Your task to perform on an android device: manage bookmarks in the chrome app Image 0: 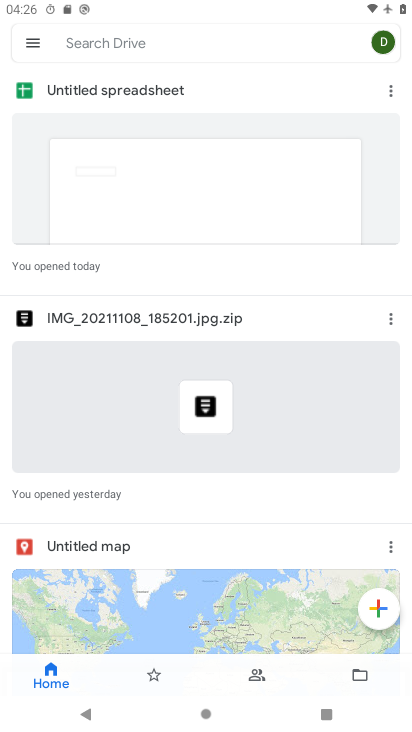
Step 0: press home button
Your task to perform on an android device: manage bookmarks in the chrome app Image 1: 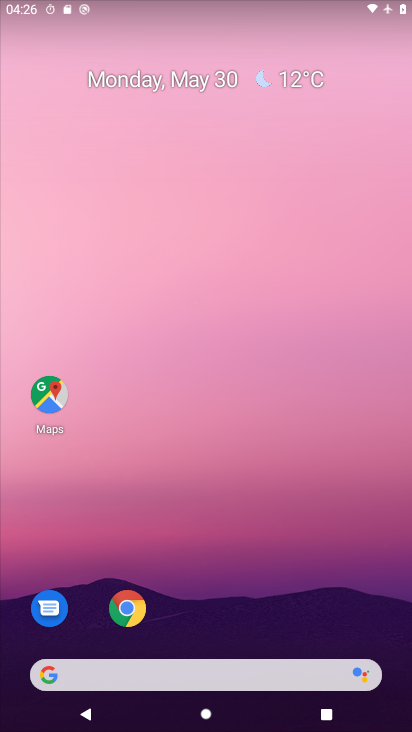
Step 1: click (133, 613)
Your task to perform on an android device: manage bookmarks in the chrome app Image 2: 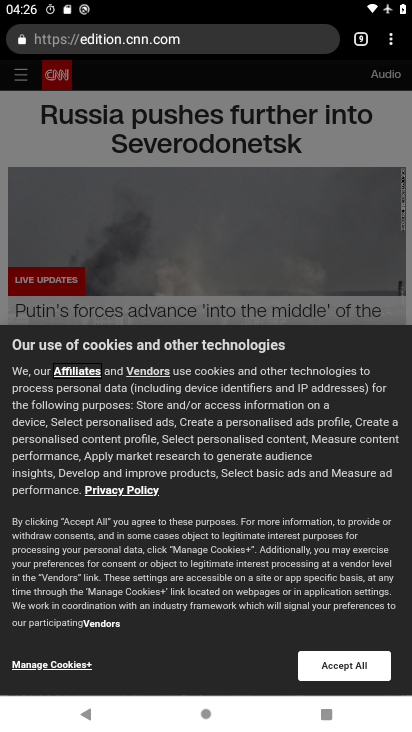
Step 2: click (387, 44)
Your task to perform on an android device: manage bookmarks in the chrome app Image 3: 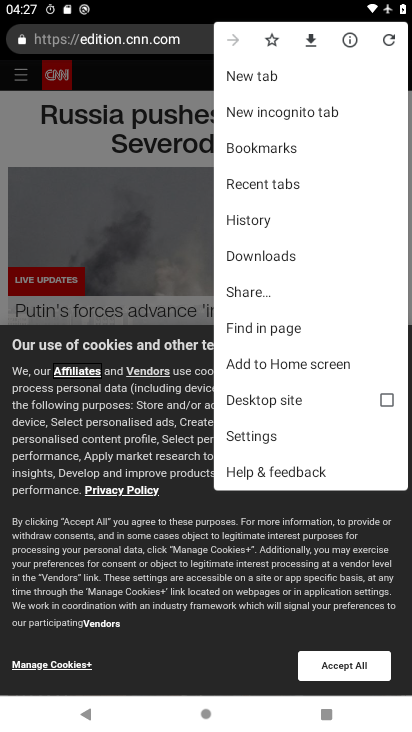
Step 3: click (275, 141)
Your task to perform on an android device: manage bookmarks in the chrome app Image 4: 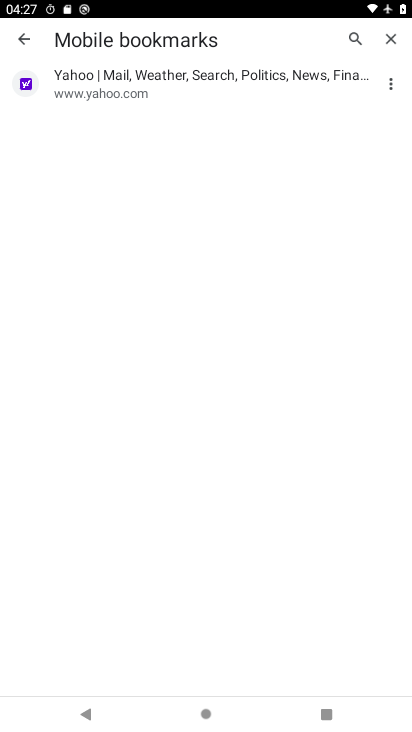
Step 4: click (247, 73)
Your task to perform on an android device: manage bookmarks in the chrome app Image 5: 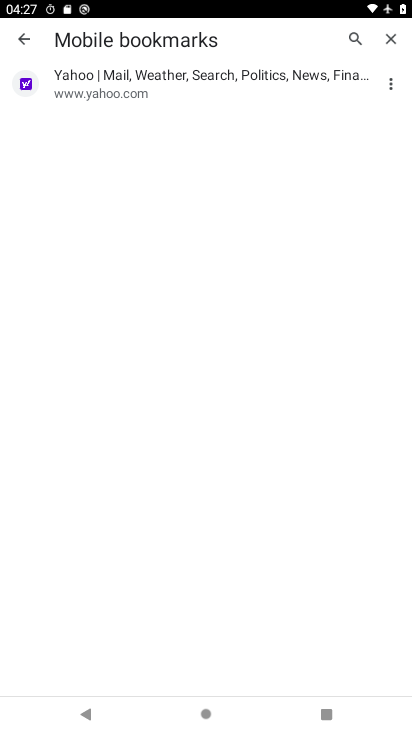
Step 5: click (389, 79)
Your task to perform on an android device: manage bookmarks in the chrome app Image 6: 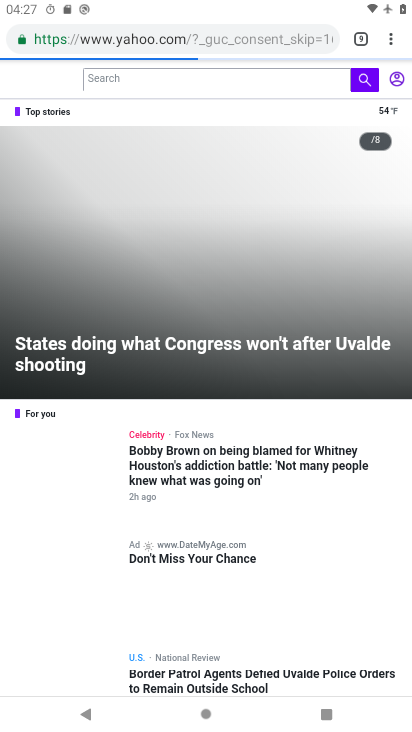
Step 6: click (395, 31)
Your task to perform on an android device: manage bookmarks in the chrome app Image 7: 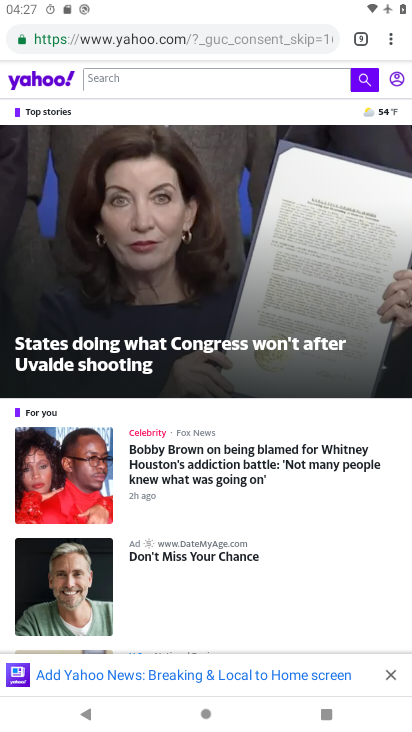
Step 7: click (399, 29)
Your task to perform on an android device: manage bookmarks in the chrome app Image 8: 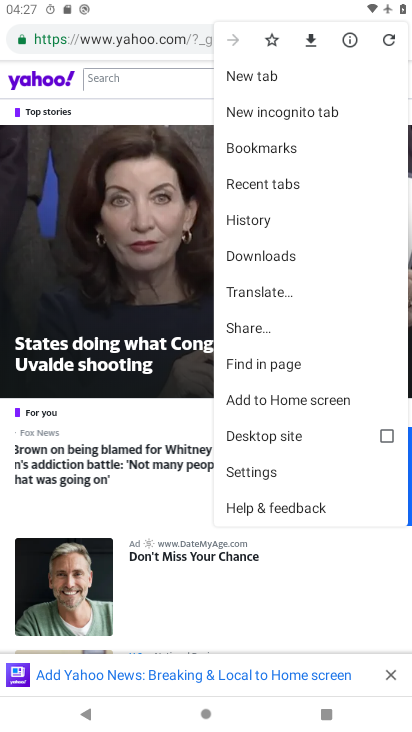
Step 8: click (324, 149)
Your task to perform on an android device: manage bookmarks in the chrome app Image 9: 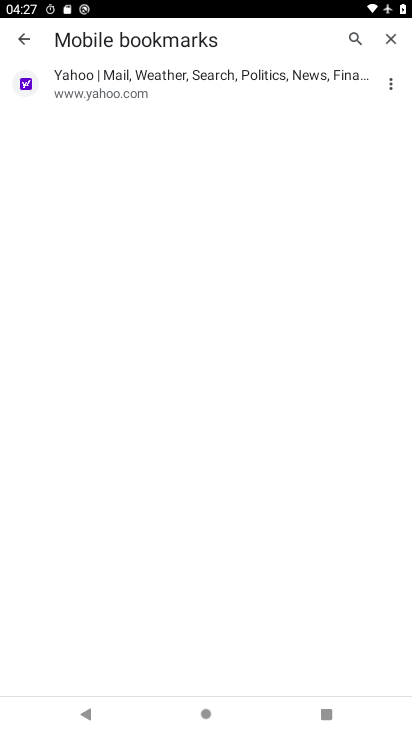
Step 9: click (383, 82)
Your task to perform on an android device: manage bookmarks in the chrome app Image 10: 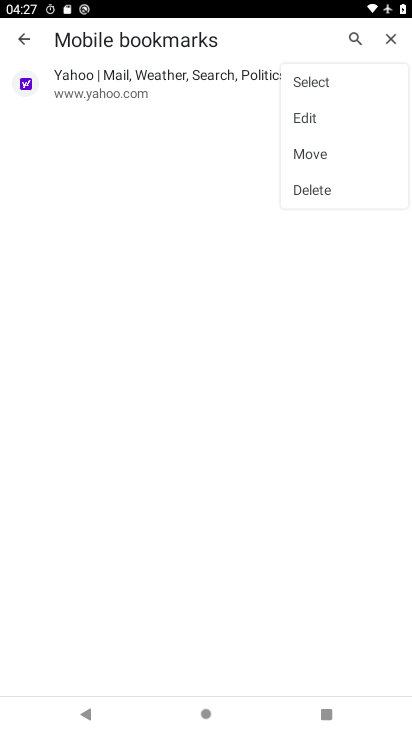
Step 10: click (328, 188)
Your task to perform on an android device: manage bookmarks in the chrome app Image 11: 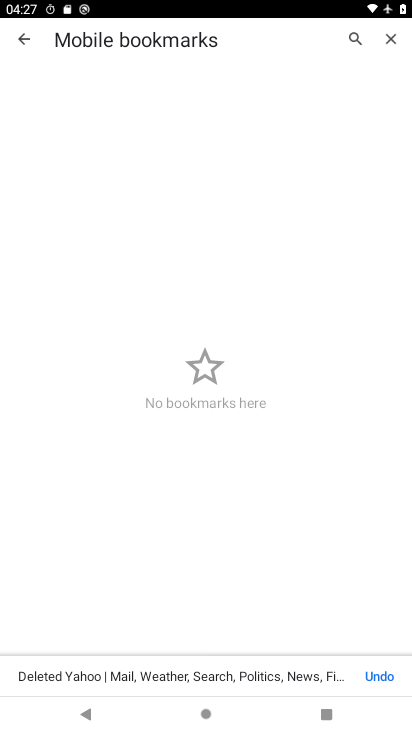
Step 11: task complete